Your task to perform on an android device: Go to Yahoo.com Image 0: 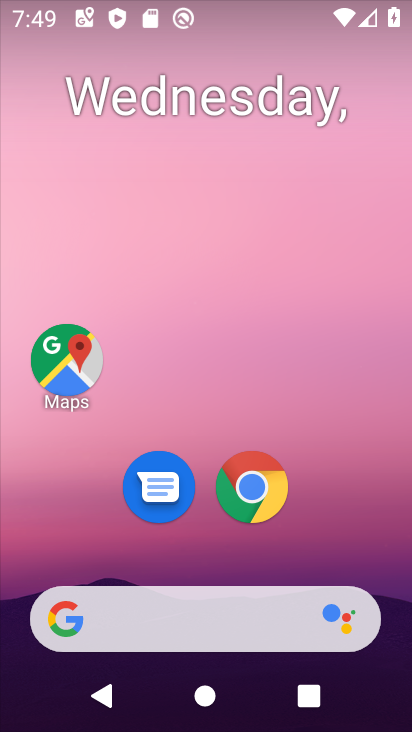
Step 0: drag from (370, 537) to (371, 166)
Your task to perform on an android device: Go to Yahoo.com Image 1: 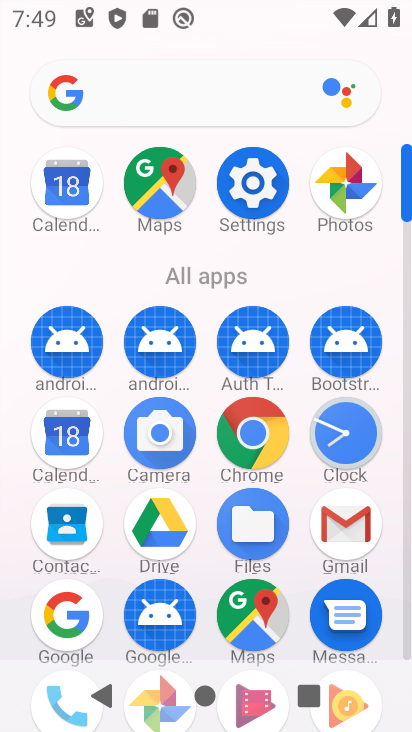
Step 1: click (262, 441)
Your task to perform on an android device: Go to Yahoo.com Image 2: 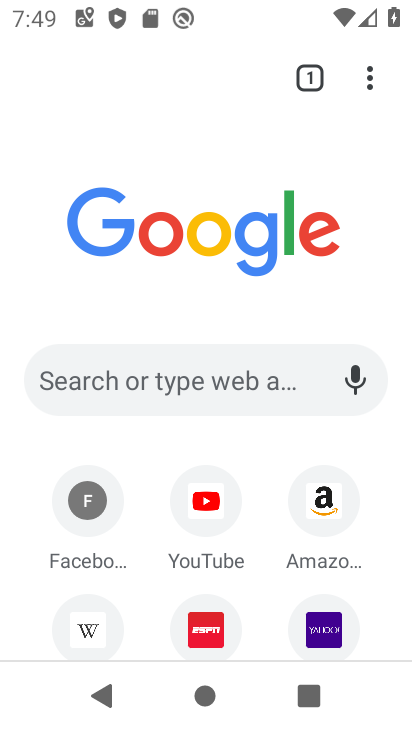
Step 2: drag from (255, 467) to (245, 358)
Your task to perform on an android device: Go to Yahoo.com Image 3: 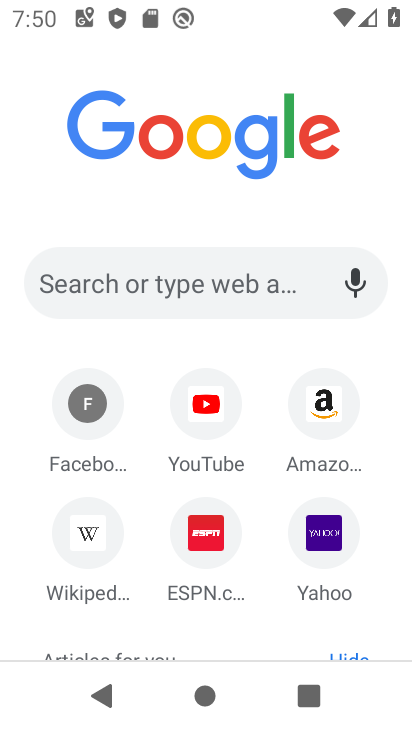
Step 3: drag from (260, 534) to (262, 435)
Your task to perform on an android device: Go to Yahoo.com Image 4: 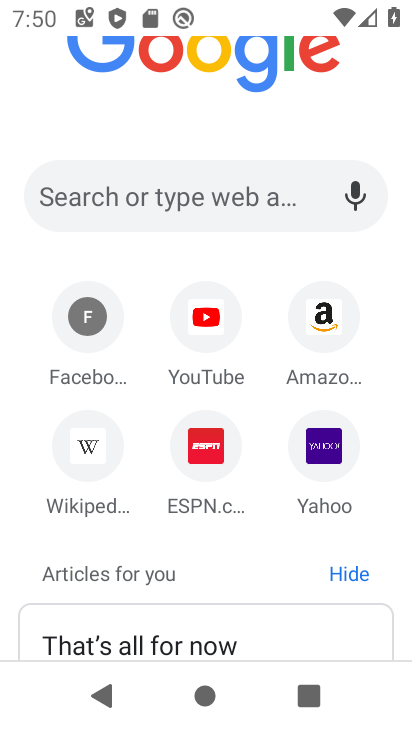
Step 4: click (333, 463)
Your task to perform on an android device: Go to Yahoo.com Image 5: 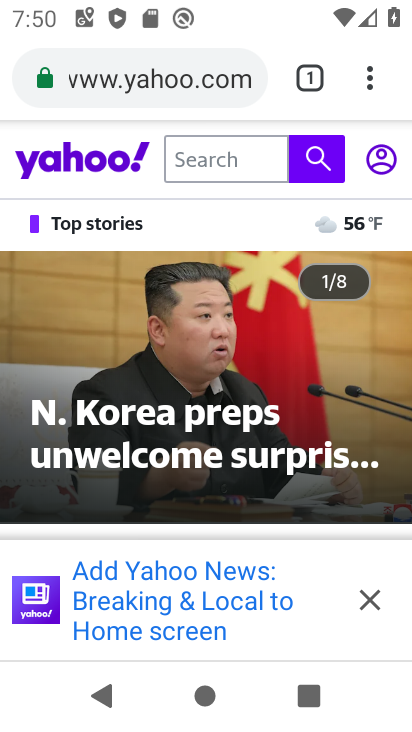
Step 5: task complete